Your task to perform on an android device: turn on improve location accuracy Image 0: 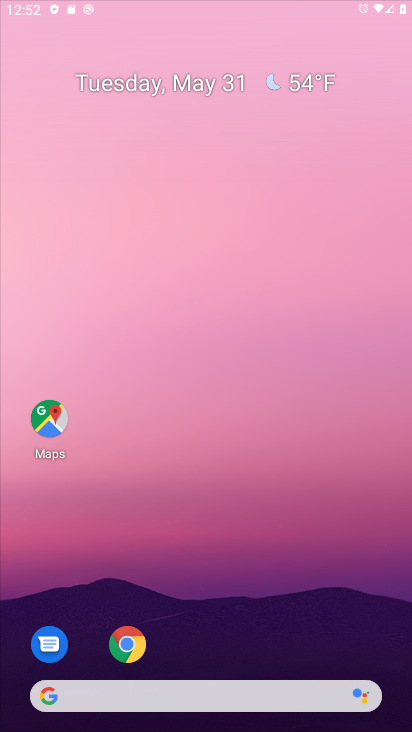
Step 0: press home button
Your task to perform on an android device: turn on improve location accuracy Image 1: 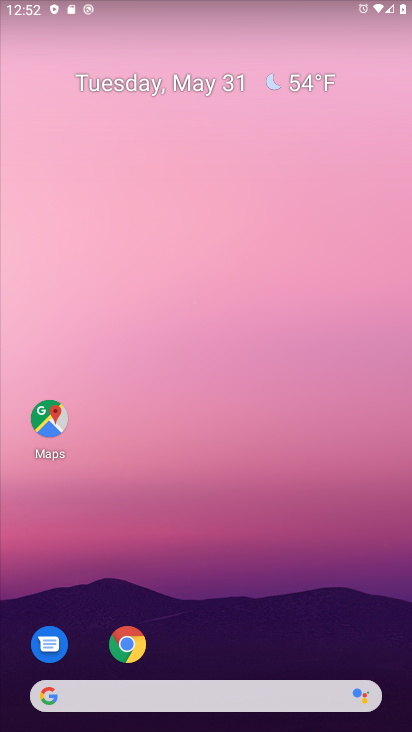
Step 1: drag from (305, 605) to (249, 235)
Your task to perform on an android device: turn on improve location accuracy Image 2: 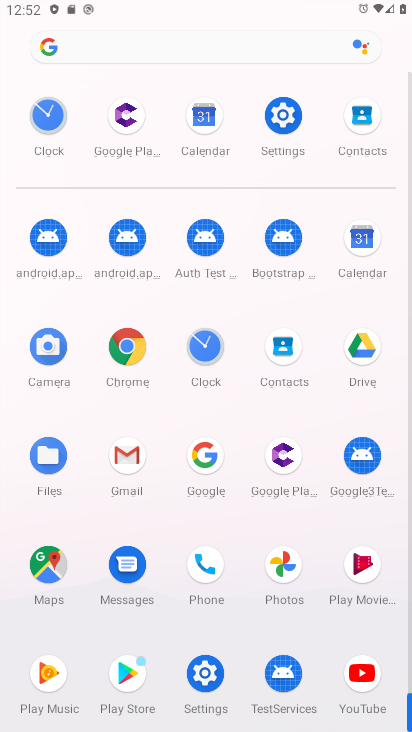
Step 2: click (285, 115)
Your task to perform on an android device: turn on improve location accuracy Image 3: 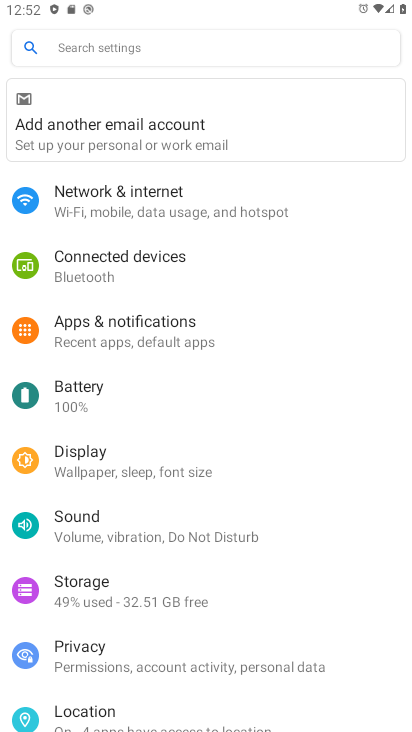
Step 3: click (98, 723)
Your task to perform on an android device: turn on improve location accuracy Image 4: 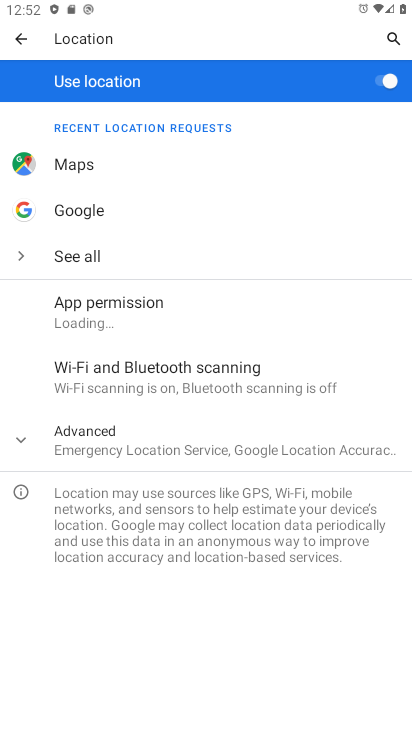
Step 4: click (75, 446)
Your task to perform on an android device: turn on improve location accuracy Image 5: 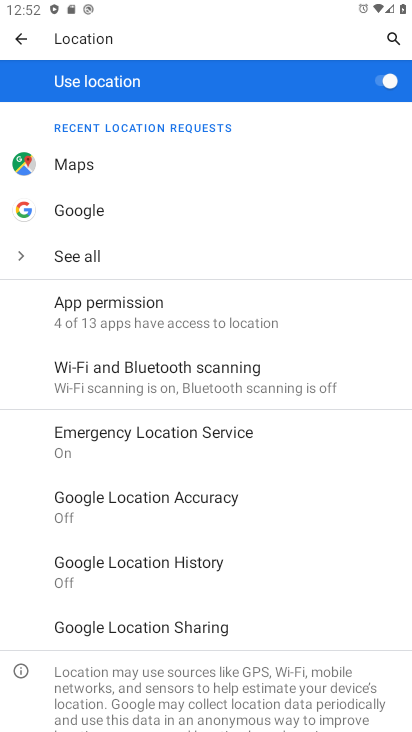
Step 5: click (172, 501)
Your task to perform on an android device: turn on improve location accuracy Image 6: 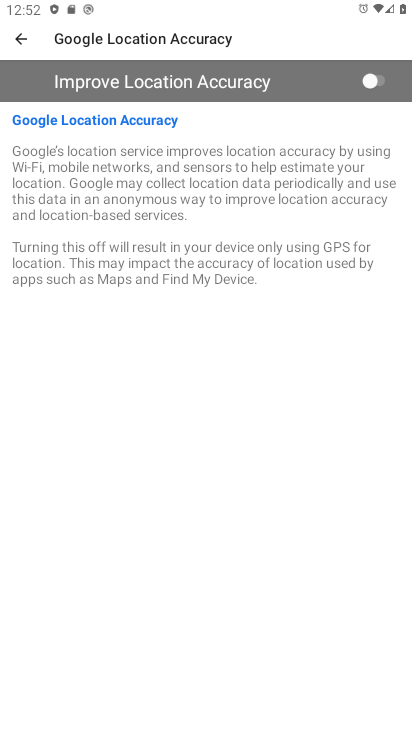
Step 6: click (376, 77)
Your task to perform on an android device: turn on improve location accuracy Image 7: 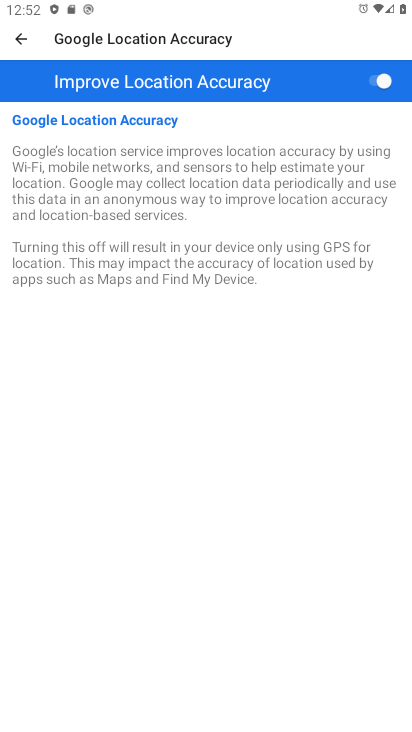
Step 7: task complete